Your task to perform on an android device: toggle airplane mode Image 0: 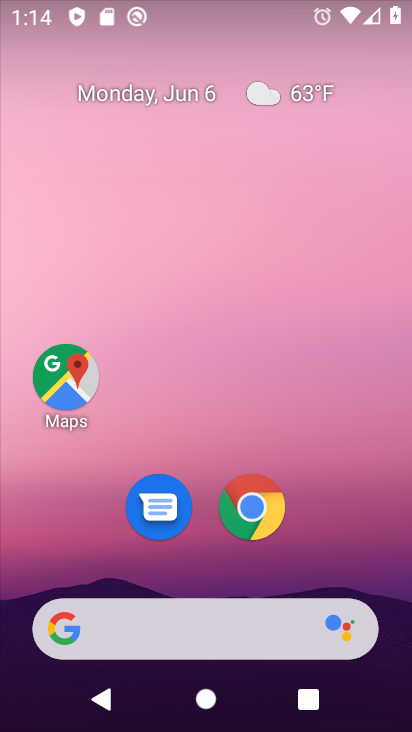
Step 0: drag from (314, 498) to (283, 0)
Your task to perform on an android device: toggle airplane mode Image 1: 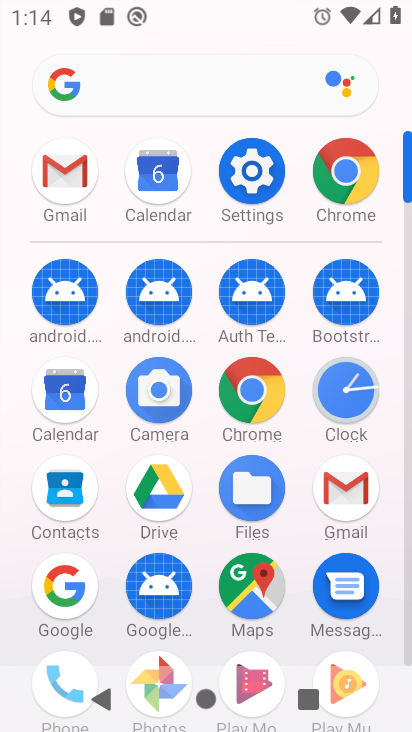
Step 1: click (253, 172)
Your task to perform on an android device: toggle airplane mode Image 2: 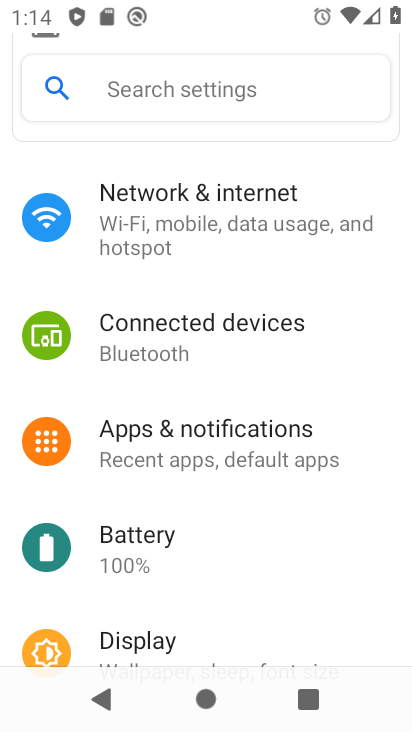
Step 2: click (302, 223)
Your task to perform on an android device: toggle airplane mode Image 3: 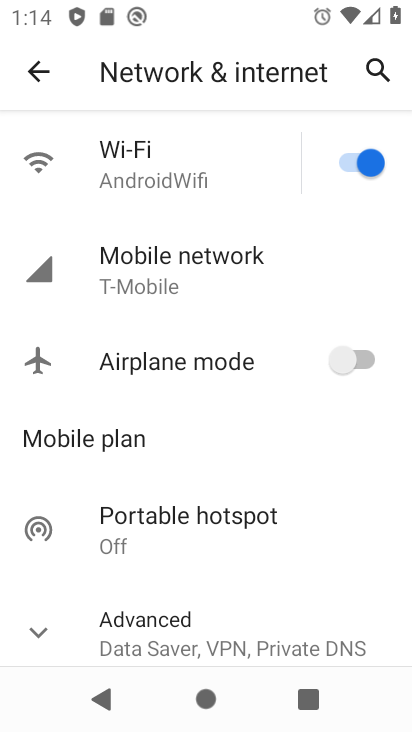
Step 3: click (354, 351)
Your task to perform on an android device: toggle airplane mode Image 4: 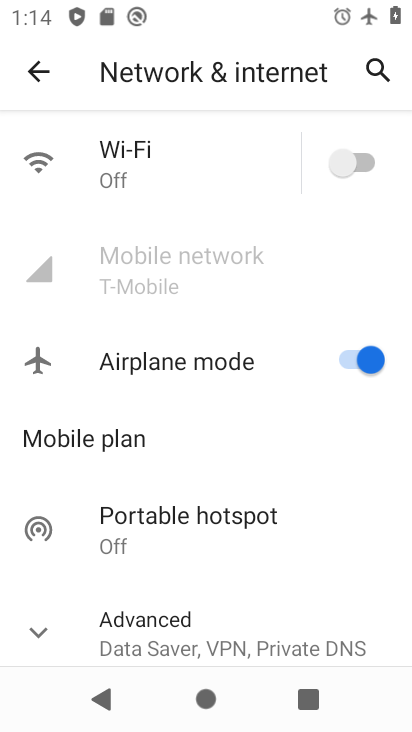
Step 4: task complete